Your task to perform on an android device: delete the emails in spam in the gmail app Image 0: 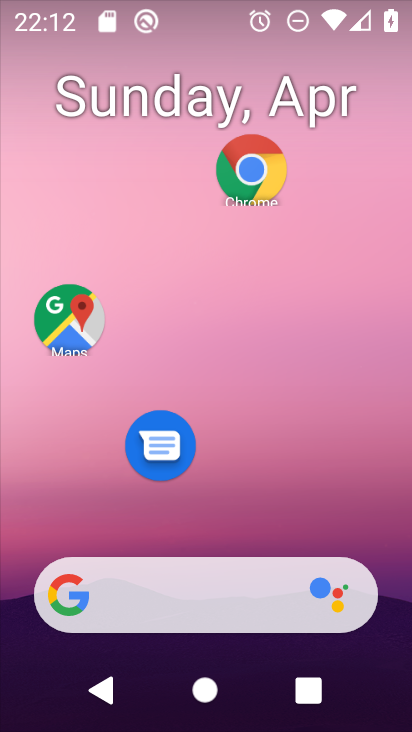
Step 0: drag from (264, 492) to (271, 72)
Your task to perform on an android device: delete the emails in spam in the gmail app Image 1: 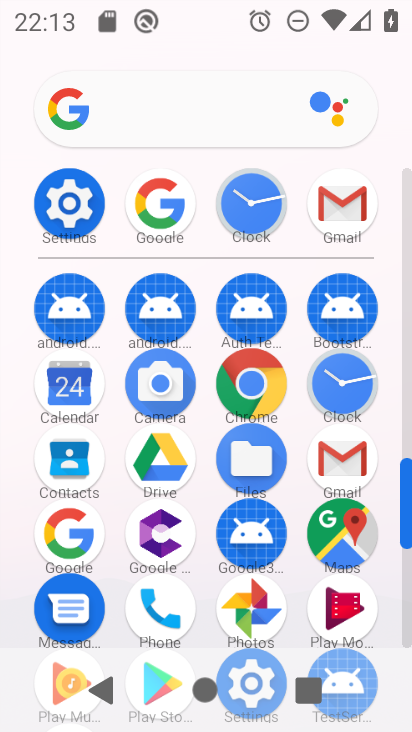
Step 1: click (347, 206)
Your task to perform on an android device: delete the emails in spam in the gmail app Image 2: 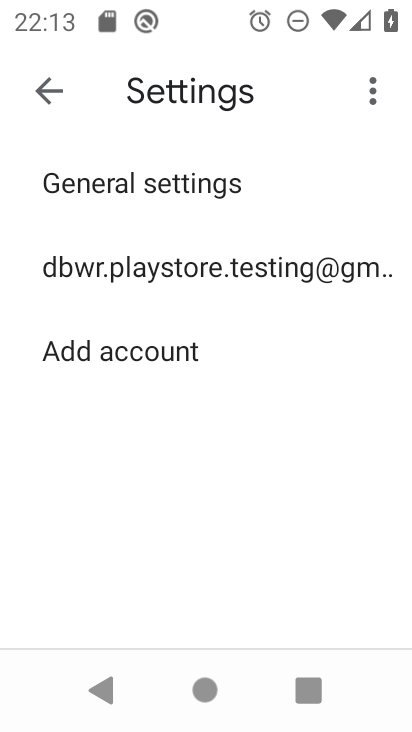
Step 2: click (275, 266)
Your task to perform on an android device: delete the emails in spam in the gmail app Image 3: 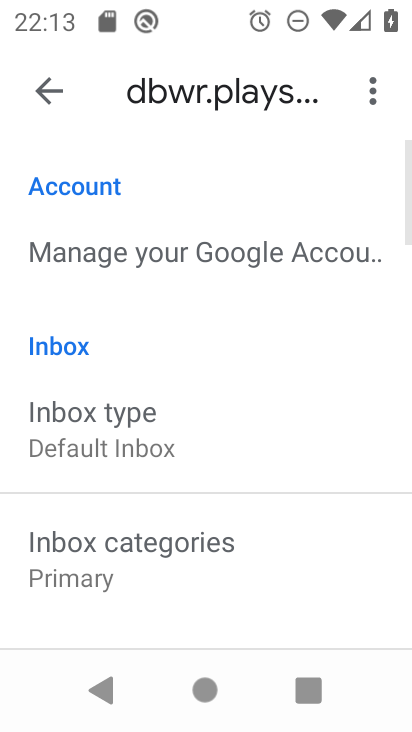
Step 3: drag from (277, 578) to (258, 195)
Your task to perform on an android device: delete the emails in spam in the gmail app Image 4: 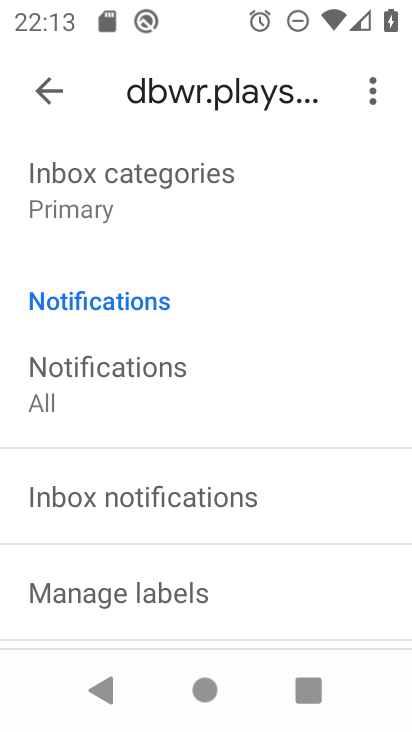
Step 4: drag from (212, 529) to (301, 261)
Your task to perform on an android device: delete the emails in spam in the gmail app Image 5: 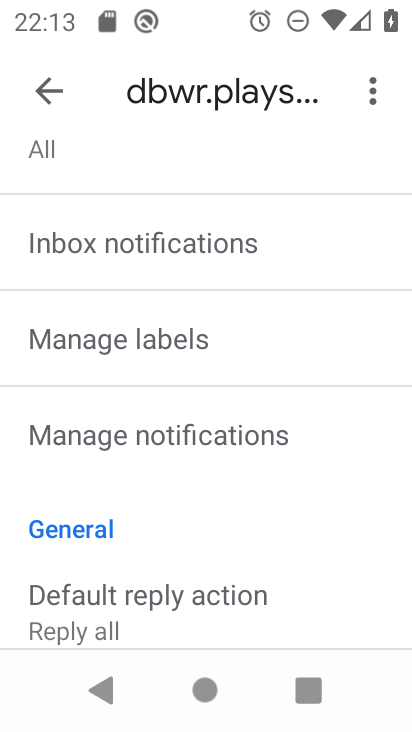
Step 5: press back button
Your task to perform on an android device: delete the emails in spam in the gmail app Image 6: 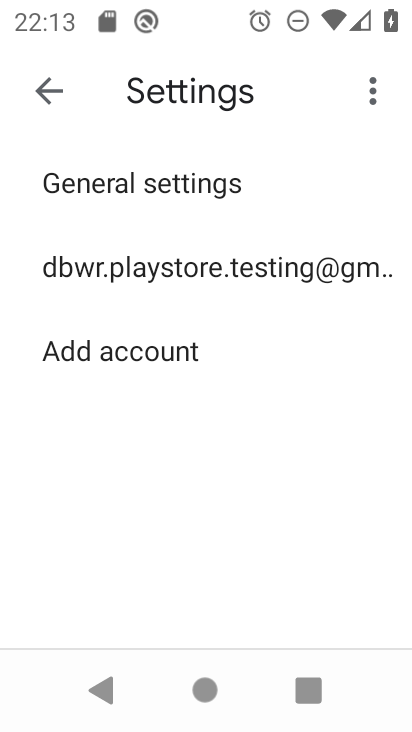
Step 6: press back button
Your task to perform on an android device: delete the emails in spam in the gmail app Image 7: 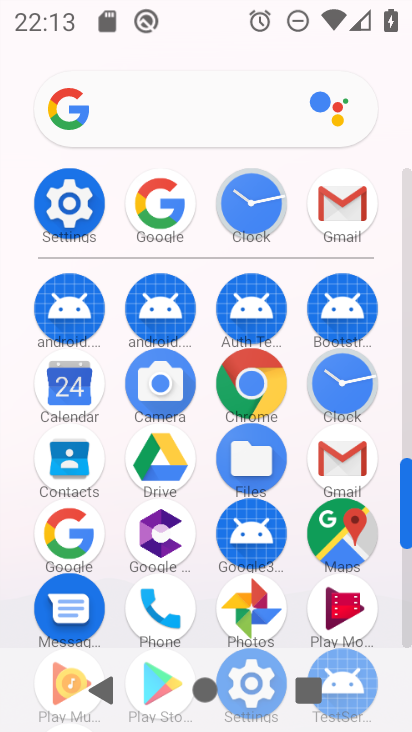
Step 7: click (357, 195)
Your task to perform on an android device: delete the emails in spam in the gmail app Image 8: 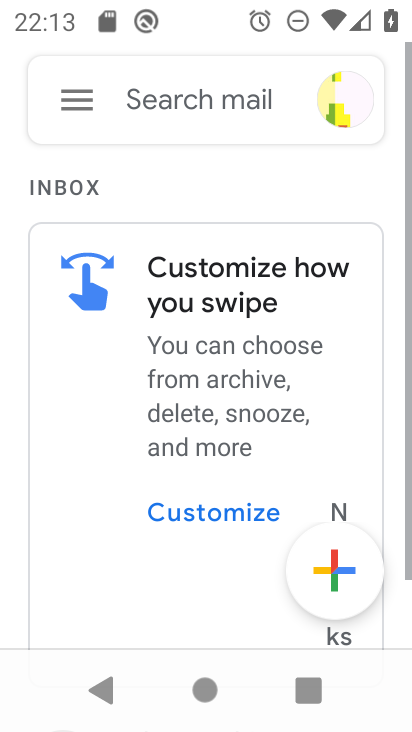
Step 8: click (71, 98)
Your task to perform on an android device: delete the emails in spam in the gmail app Image 9: 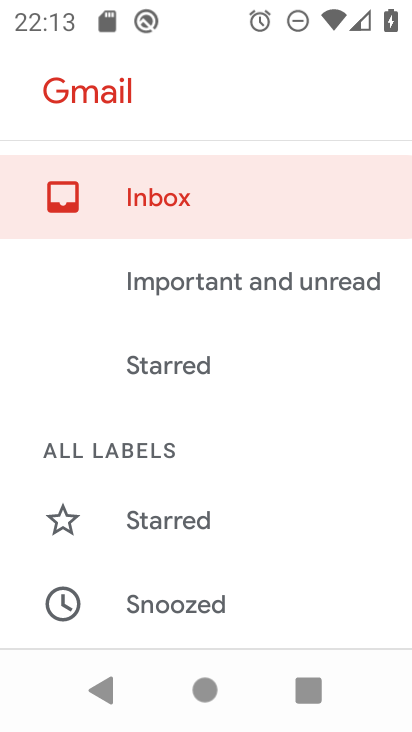
Step 9: drag from (204, 528) to (213, 158)
Your task to perform on an android device: delete the emails in spam in the gmail app Image 10: 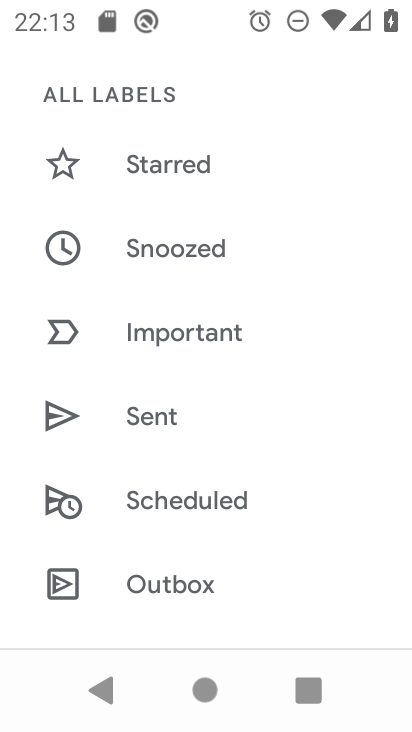
Step 10: drag from (224, 543) to (228, 281)
Your task to perform on an android device: delete the emails in spam in the gmail app Image 11: 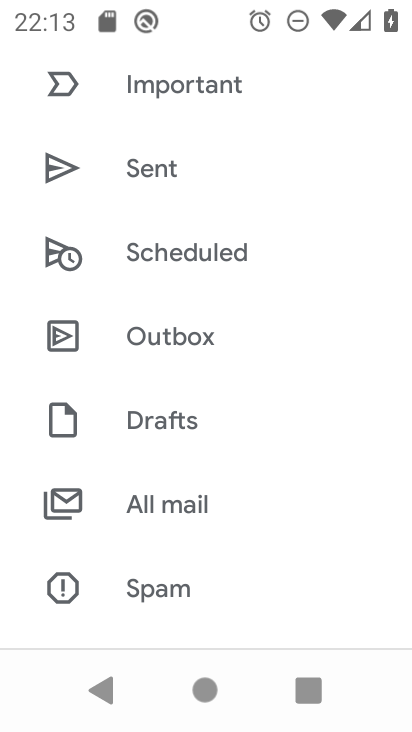
Step 11: click (156, 585)
Your task to perform on an android device: delete the emails in spam in the gmail app Image 12: 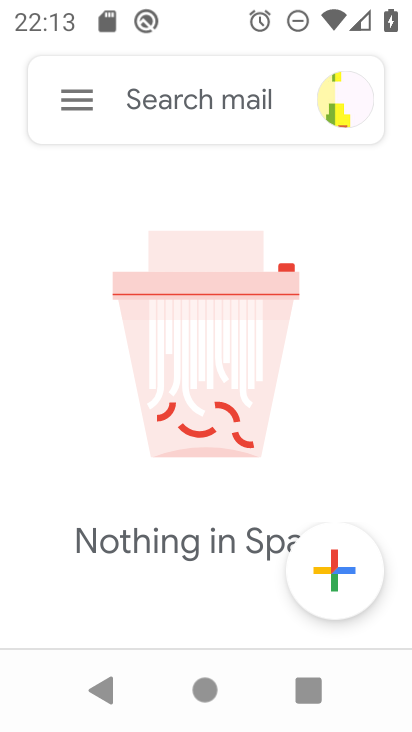
Step 12: task complete